Your task to perform on an android device: check out phone information Image 0: 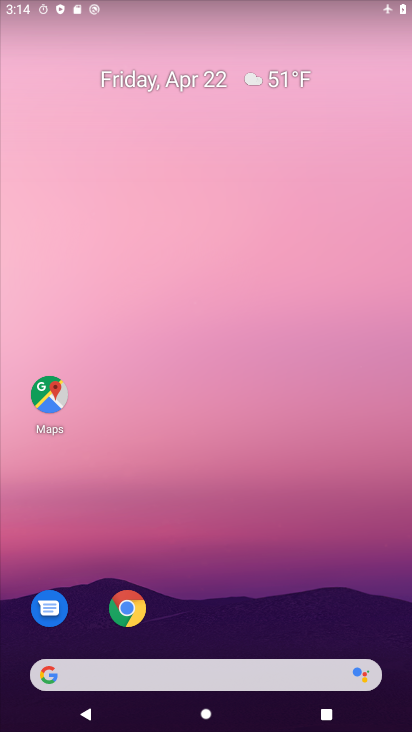
Step 0: drag from (223, 497) to (262, 43)
Your task to perform on an android device: check out phone information Image 1: 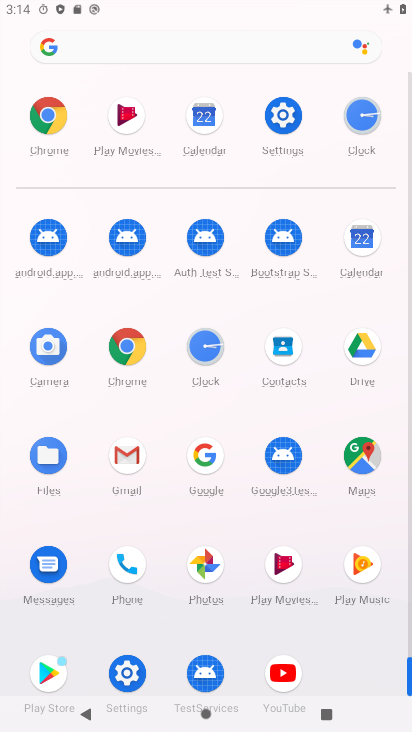
Step 1: click (283, 111)
Your task to perform on an android device: check out phone information Image 2: 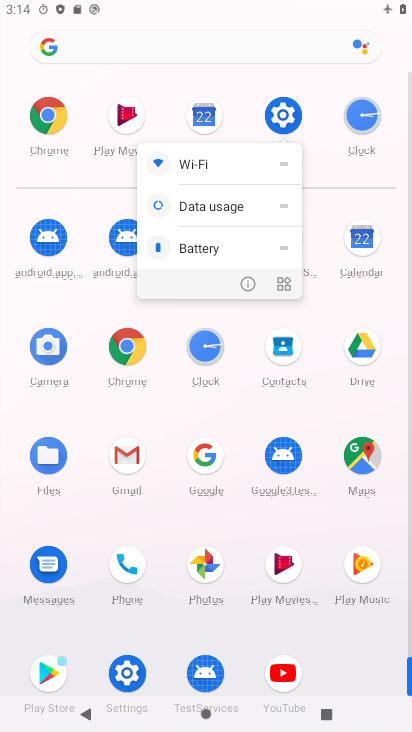
Step 2: click (282, 110)
Your task to perform on an android device: check out phone information Image 3: 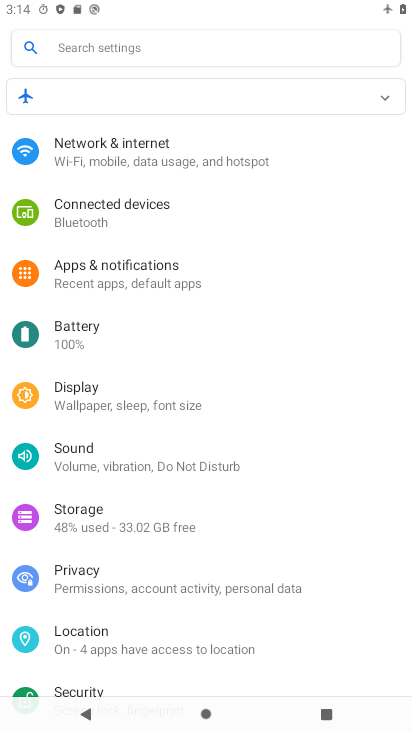
Step 3: drag from (232, 594) to (285, 74)
Your task to perform on an android device: check out phone information Image 4: 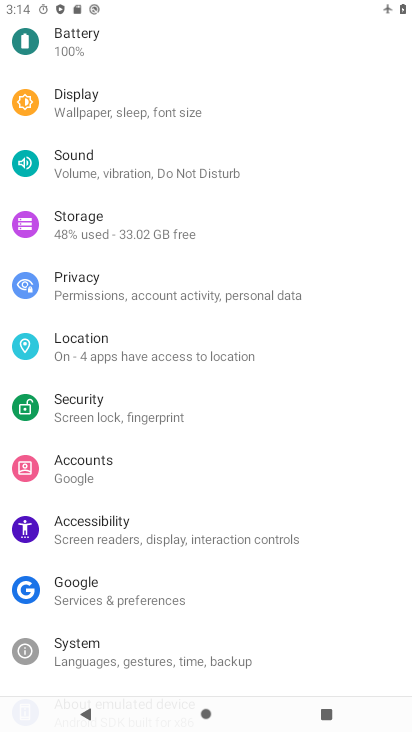
Step 4: drag from (246, 510) to (303, 22)
Your task to perform on an android device: check out phone information Image 5: 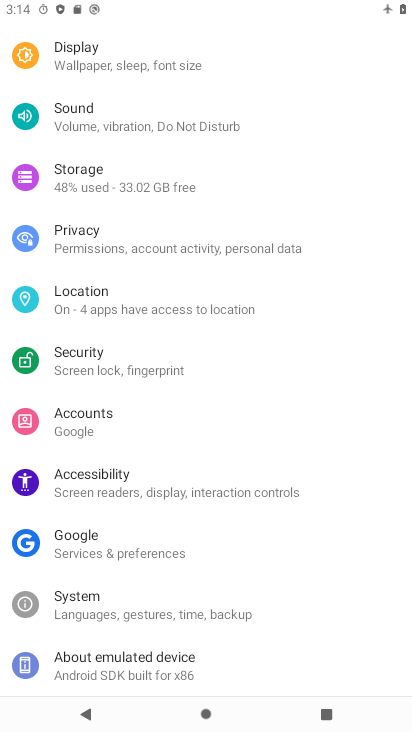
Step 5: click (152, 656)
Your task to perform on an android device: check out phone information Image 6: 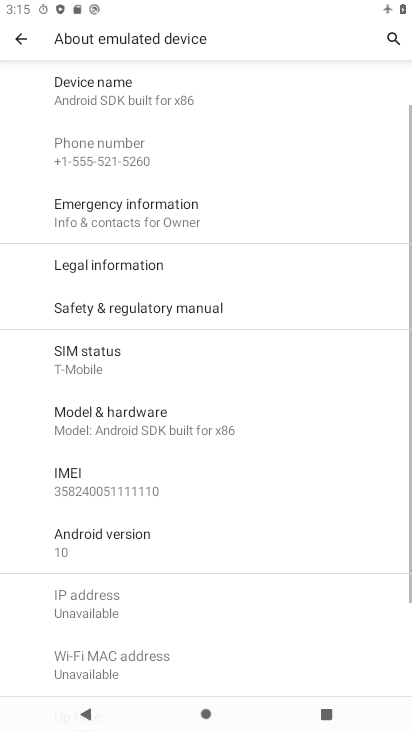
Step 6: click (116, 421)
Your task to perform on an android device: check out phone information Image 7: 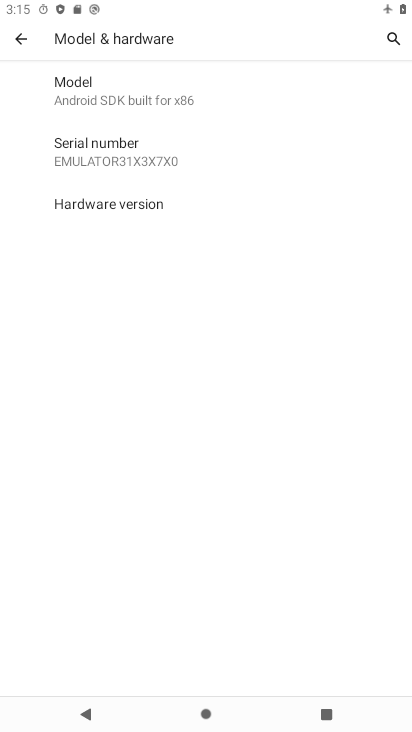
Step 7: task complete